Your task to perform on an android device: read, delete, or share a saved page in the chrome app Image 0: 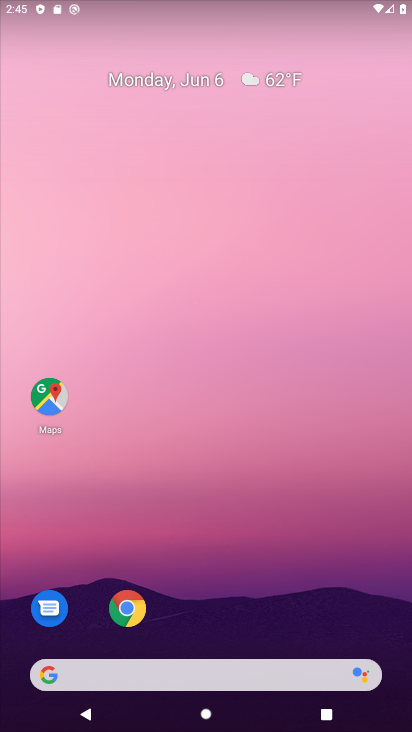
Step 0: click (123, 614)
Your task to perform on an android device: read, delete, or share a saved page in the chrome app Image 1: 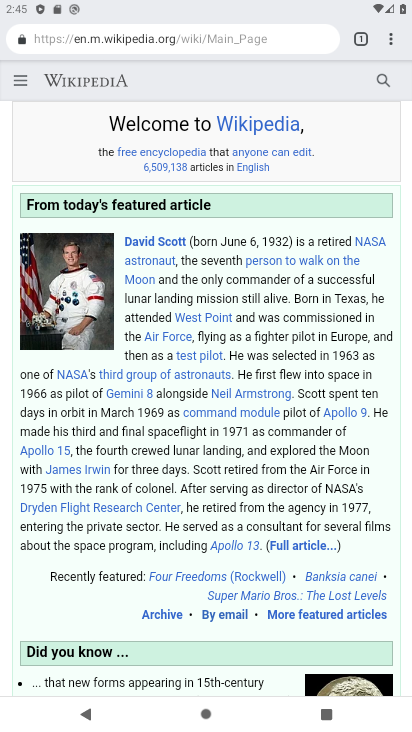
Step 1: click (396, 39)
Your task to perform on an android device: read, delete, or share a saved page in the chrome app Image 2: 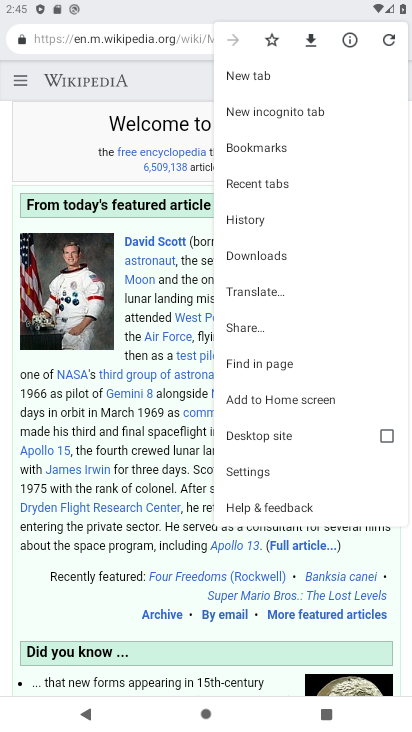
Step 2: click (258, 265)
Your task to perform on an android device: read, delete, or share a saved page in the chrome app Image 3: 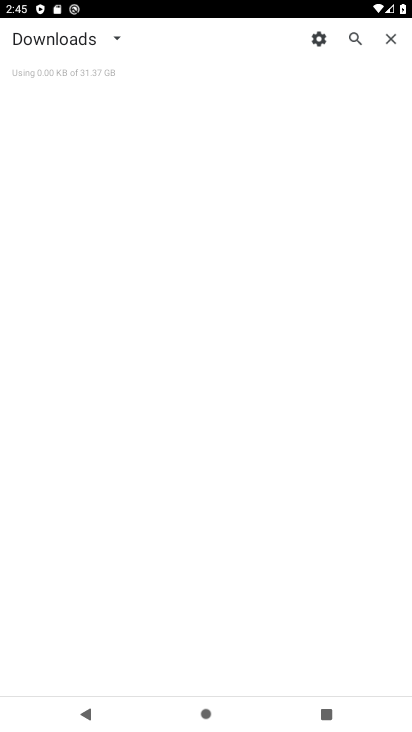
Step 3: click (99, 34)
Your task to perform on an android device: read, delete, or share a saved page in the chrome app Image 4: 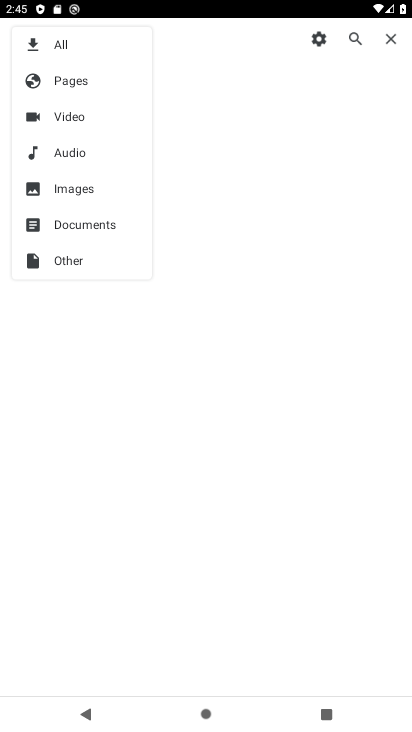
Step 4: click (87, 90)
Your task to perform on an android device: read, delete, or share a saved page in the chrome app Image 5: 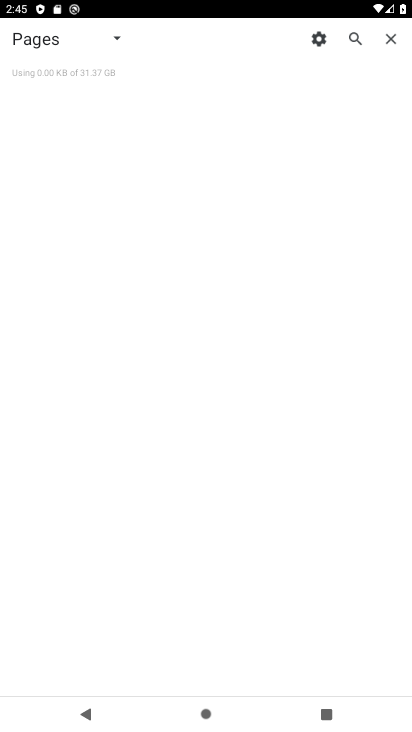
Step 5: task complete